Your task to perform on an android device: allow cookies in the chrome app Image 0: 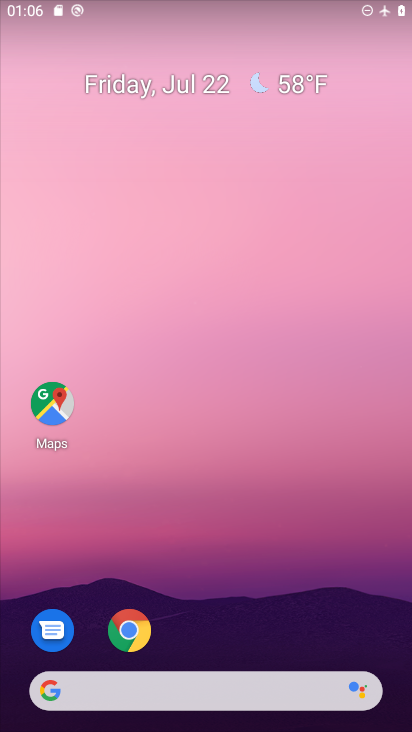
Step 0: drag from (300, 616) to (330, 8)
Your task to perform on an android device: allow cookies in the chrome app Image 1: 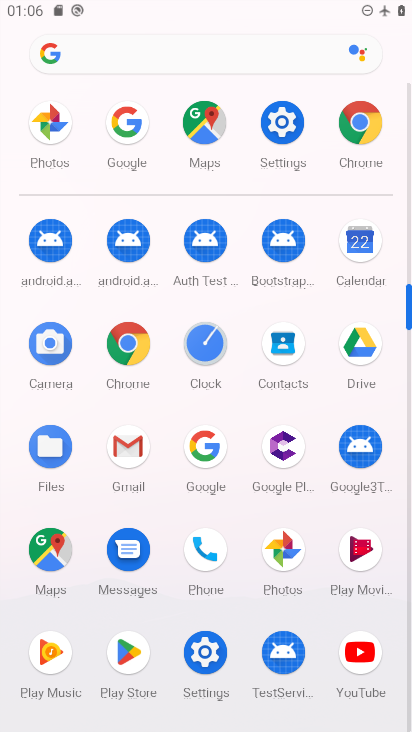
Step 1: click (137, 340)
Your task to perform on an android device: allow cookies in the chrome app Image 2: 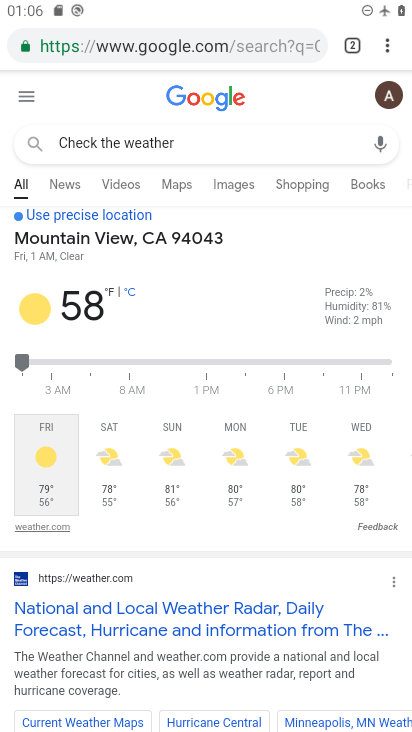
Step 2: drag from (390, 44) to (249, 507)
Your task to perform on an android device: allow cookies in the chrome app Image 3: 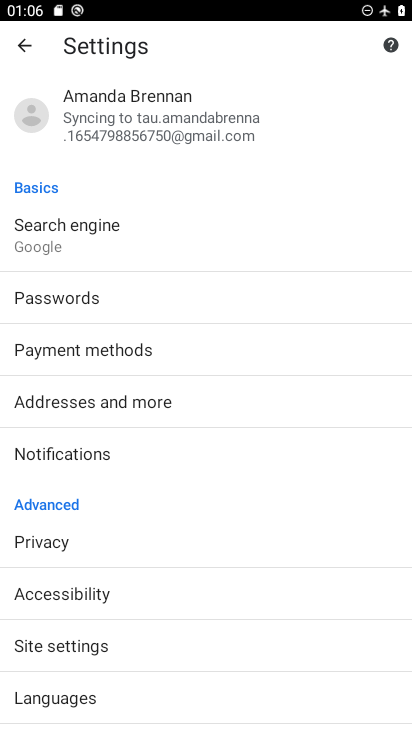
Step 3: click (87, 644)
Your task to perform on an android device: allow cookies in the chrome app Image 4: 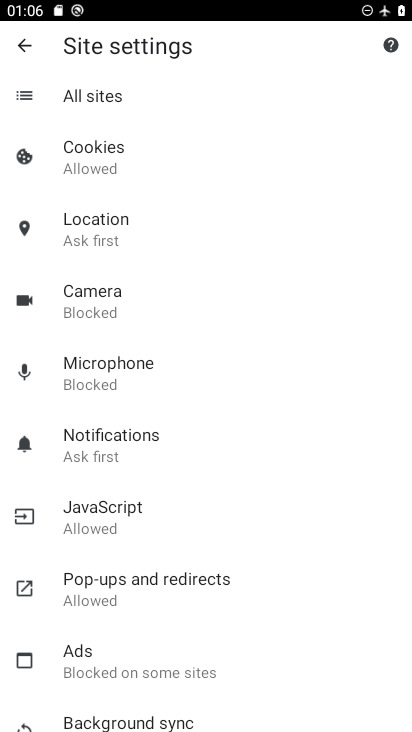
Step 4: click (106, 150)
Your task to perform on an android device: allow cookies in the chrome app Image 5: 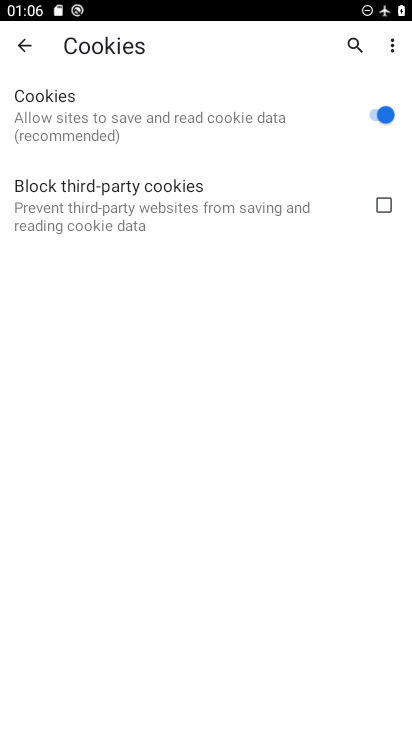
Step 5: task complete